Your task to perform on an android device: set the stopwatch Image 0: 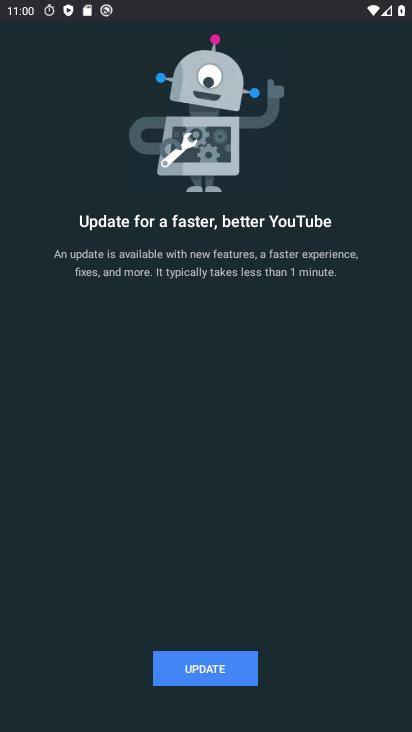
Step 0: press home button
Your task to perform on an android device: set the stopwatch Image 1: 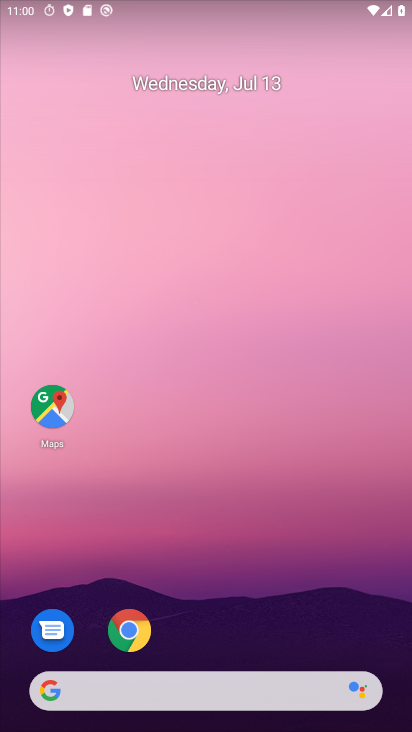
Step 1: drag from (222, 642) to (301, 73)
Your task to perform on an android device: set the stopwatch Image 2: 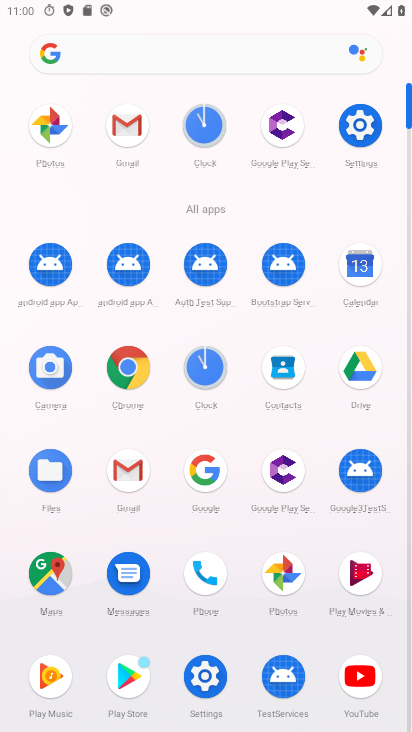
Step 2: click (211, 365)
Your task to perform on an android device: set the stopwatch Image 3: 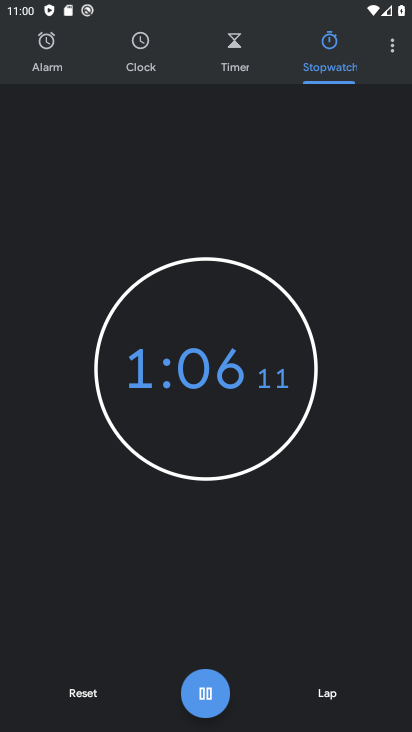
Step 3: task complete